Your task to perform on an android device: toggle translation in the chrome app Image 0: 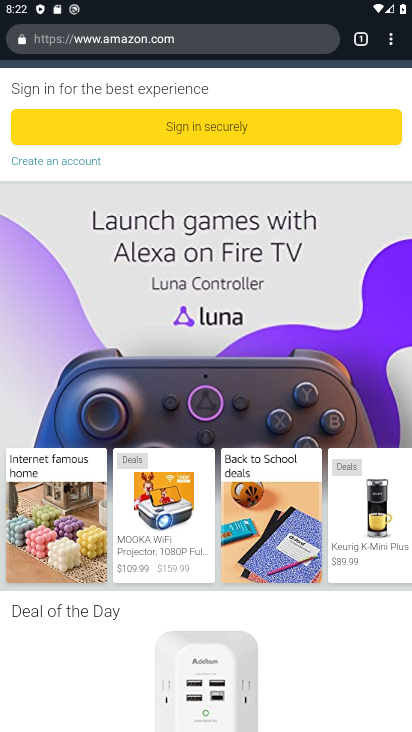
Step 0: click (389, 38)
Your task to perform on an android device: toggle translation in the chrome app Image 1: 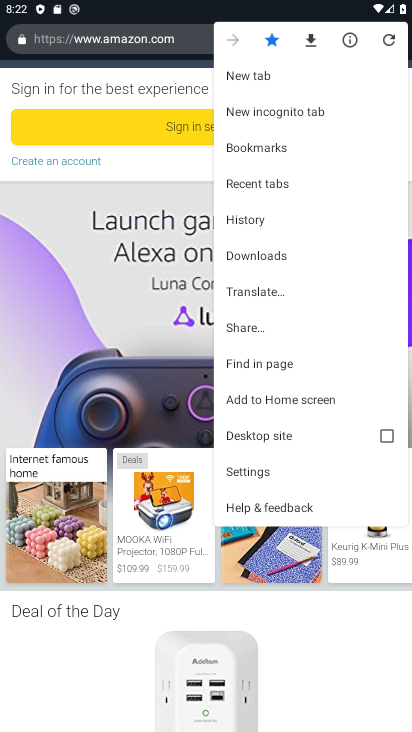
Step 1: click (260, 466)
Your task to perform on an android device: toggle translation in the chrome app Image 2: 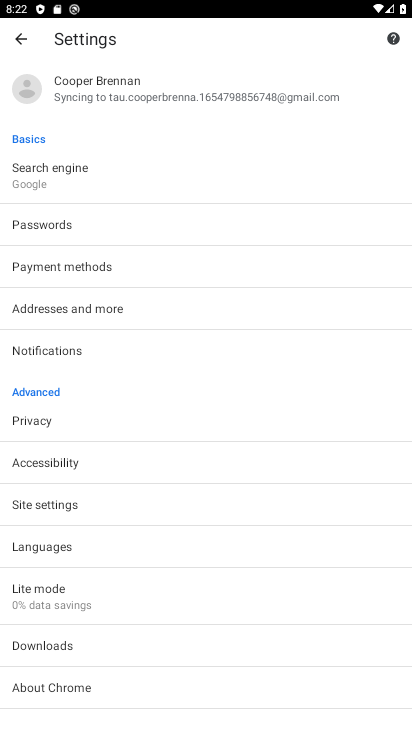
Step 2: click (47, 548)
Your task to perform on an android device: toggle translation in the chrome app Image 3: 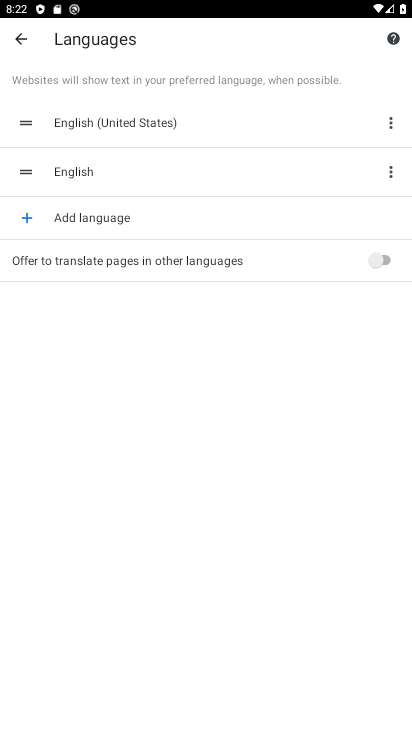
Step 3: click (368, 264)
Your task to perform on an android device: toggle translation in the chrome app Image 4: 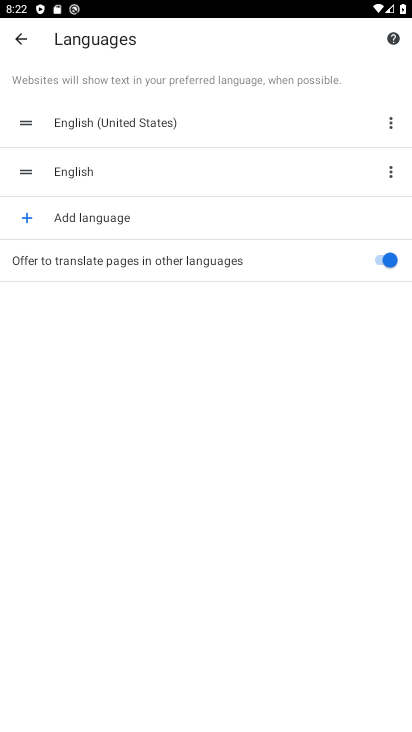
Step 4: task complete